Your task to perform on an android device: toggle sleep mode Image 0: 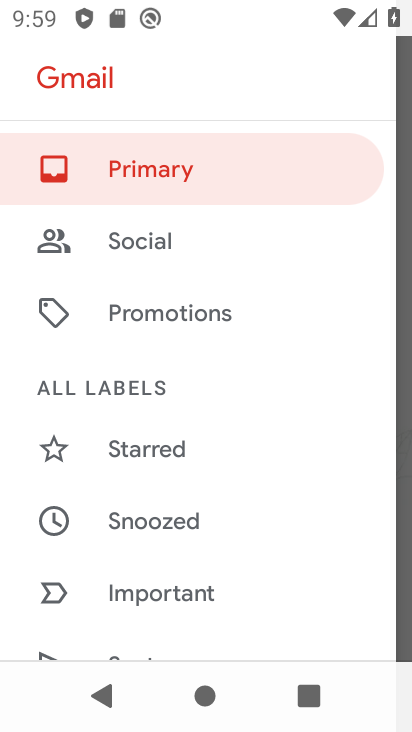
Step 0: press home button
Your task to perform on an android device: toggle sleep mode Image 1: 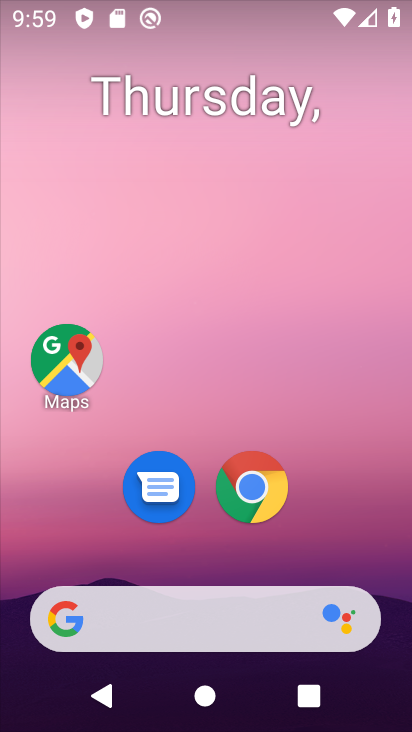
Step 1: drag from (356, 508) to (221, 226)
Your task to perform on an android device: toggle sleep mode Image 2: 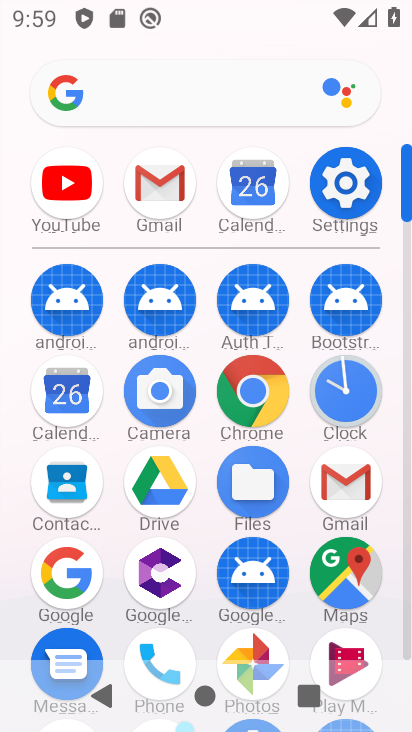
Step 2: click (369, 177)
Your task to perform on an android device: toggle sleep mode Image 3: 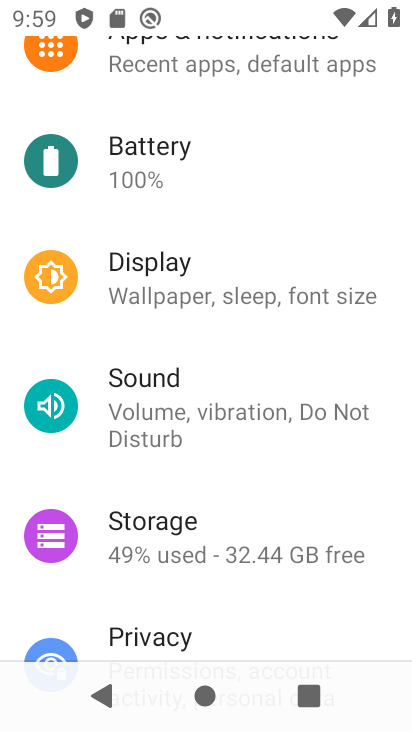
Step 3: click (263, 291)
Your task to perform on an android device: toggle sleep mode Image 4: 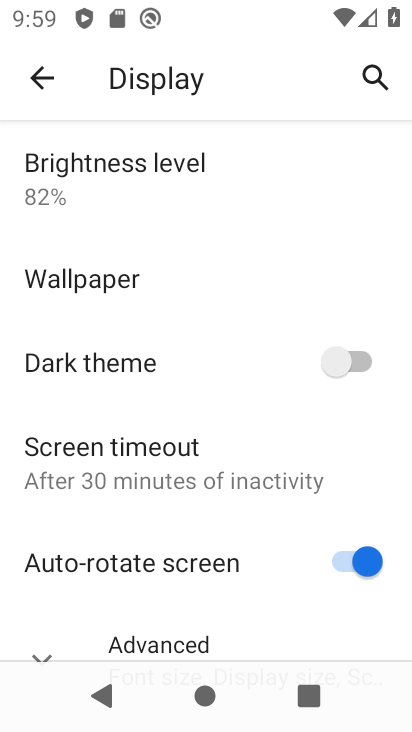
Step 4: click (137, 634)
Your task to perform on an android device: toggle sleep mode Image 5: 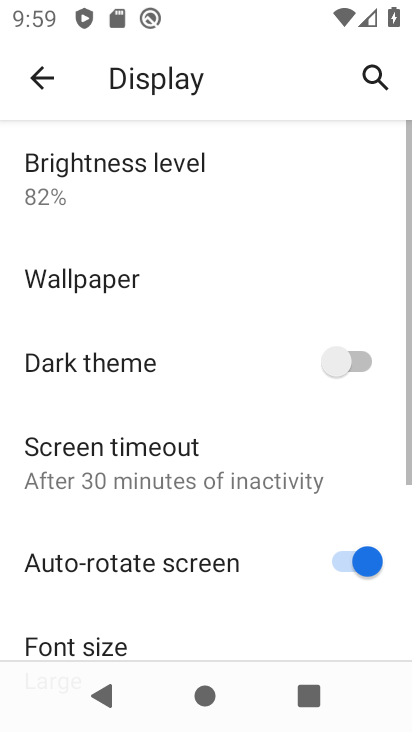
Step 5: task complete